Your task to perform on an android device: move a message to another label in the gmail app Image 0: 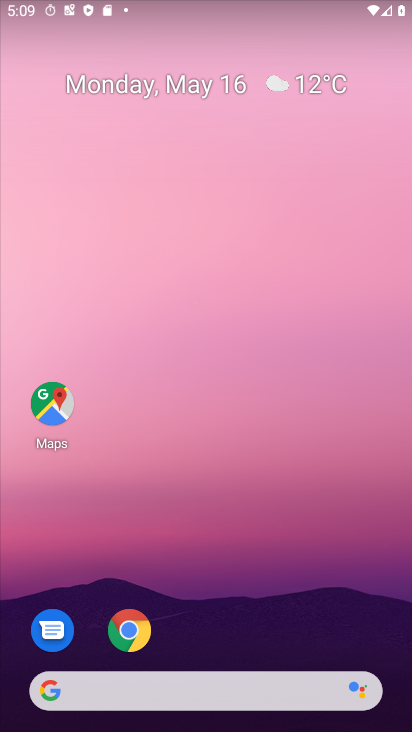
Step 0: drag from (267, 609) to (234, 142)
Your task to perform on an android device: move a message to another label in the gmail app Image 1: 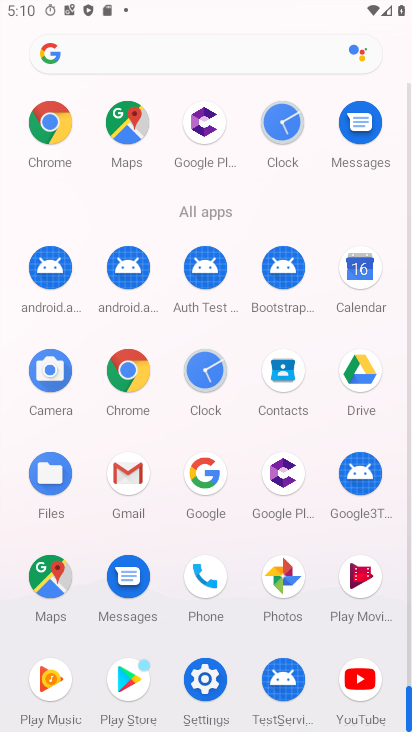
Step 1: click (135, 475)
Your task to perform on an android device: move a message to another label in the gmail app Image 2: 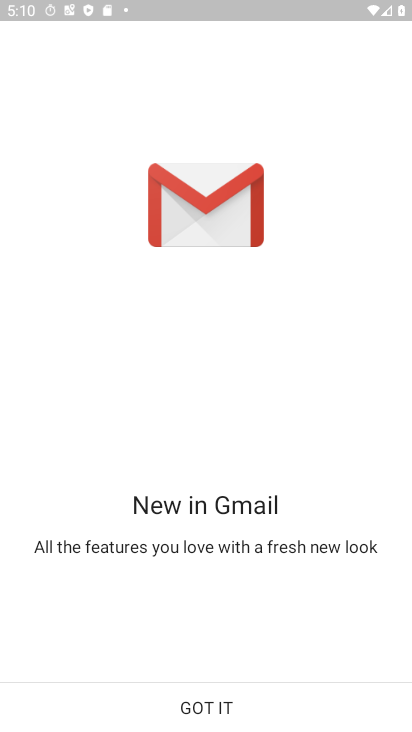
Step 2: click (291, 697)
Your task to perform on an android device: move a message to another label in the gmail app Image 3: 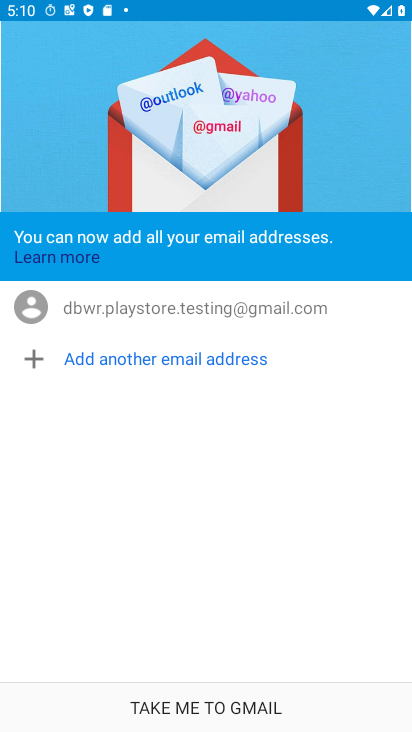
Step 3: click (198, 704)
Your task to perform on an android device: move a message to another label in the gmail app Image 4: 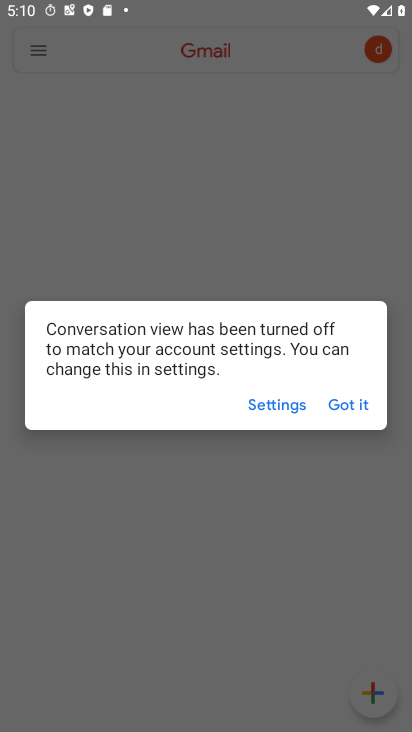
Step 4: click (343, 402)
Your task to perform on an android device: move a message to another label in the gmail app Image 5: 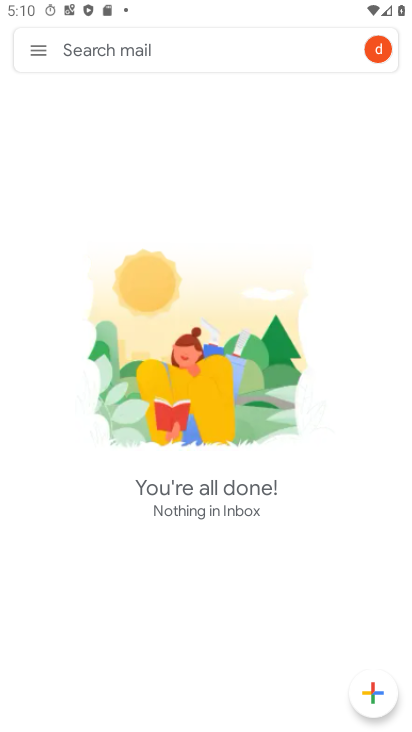
Step 5: click (45, 47)
Your task to perform on an android device: move a message to another label in the gmail app Image 6: 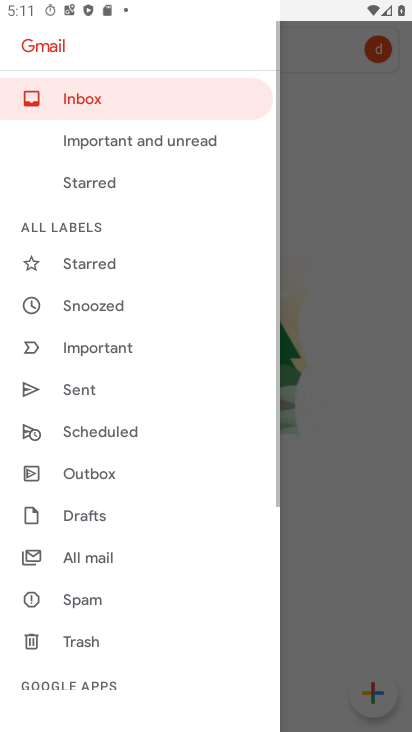
Step 6: click (109, 550)
Your task to perform on an android device: move a message to another label in the gmail app Image 7: 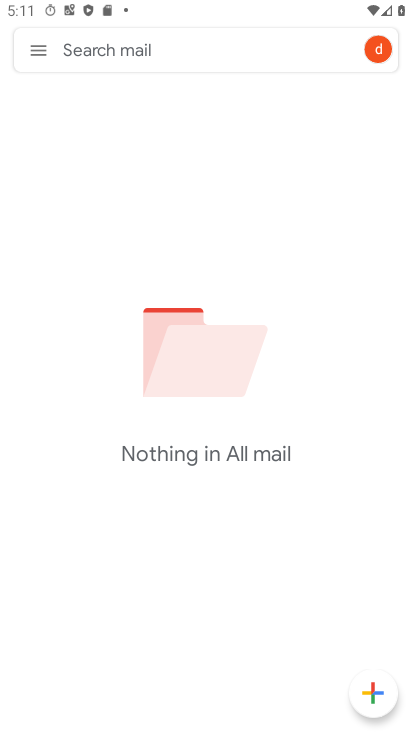
Step 7: task complete